Your task to perform on an android device: open app "Indeed Job Search" Image 0: 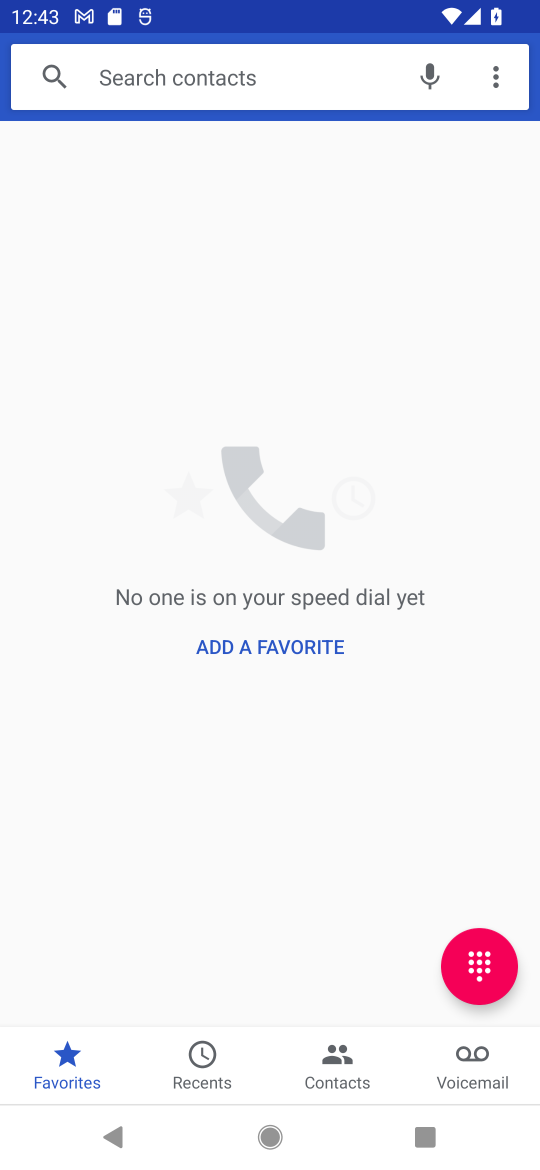
Step 0: press home button
Your task to perform on an android device: open app "Indeed Job Search" Image 1: 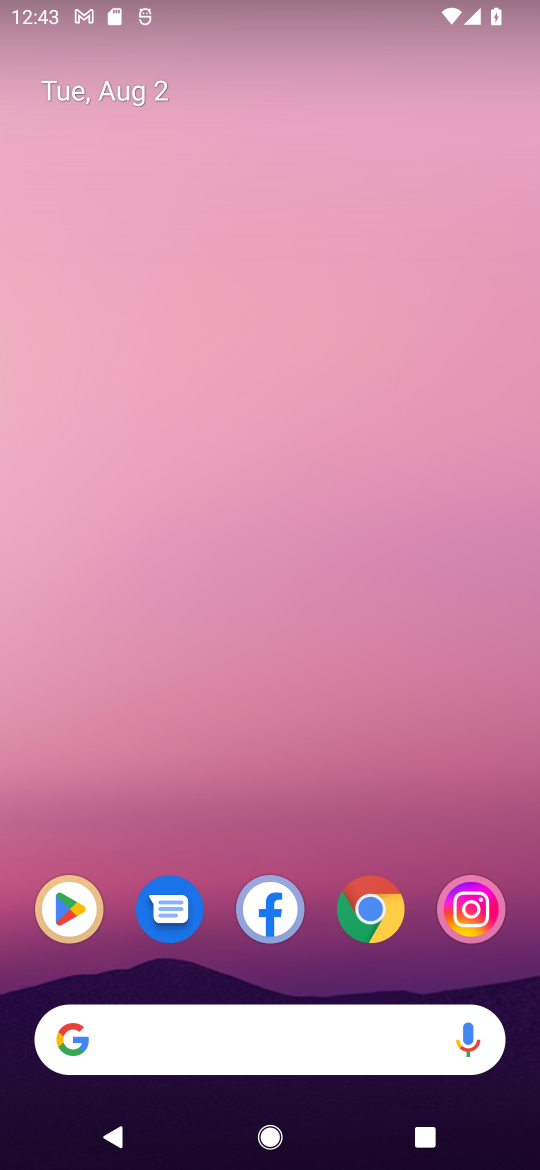
Step 1: click (66, 912)
Your task to perform on an android device: open app "Indeed Job Search" Image 2: 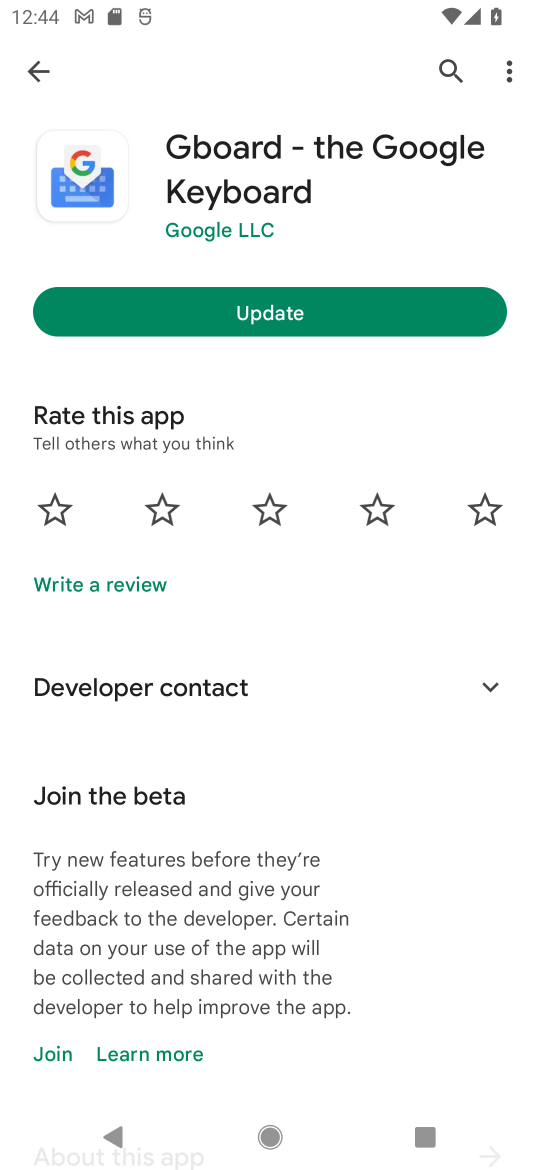
Step 2: click (39, 69)
Your task to perform on an android device: open app "Indeed Job Search" Image 3: 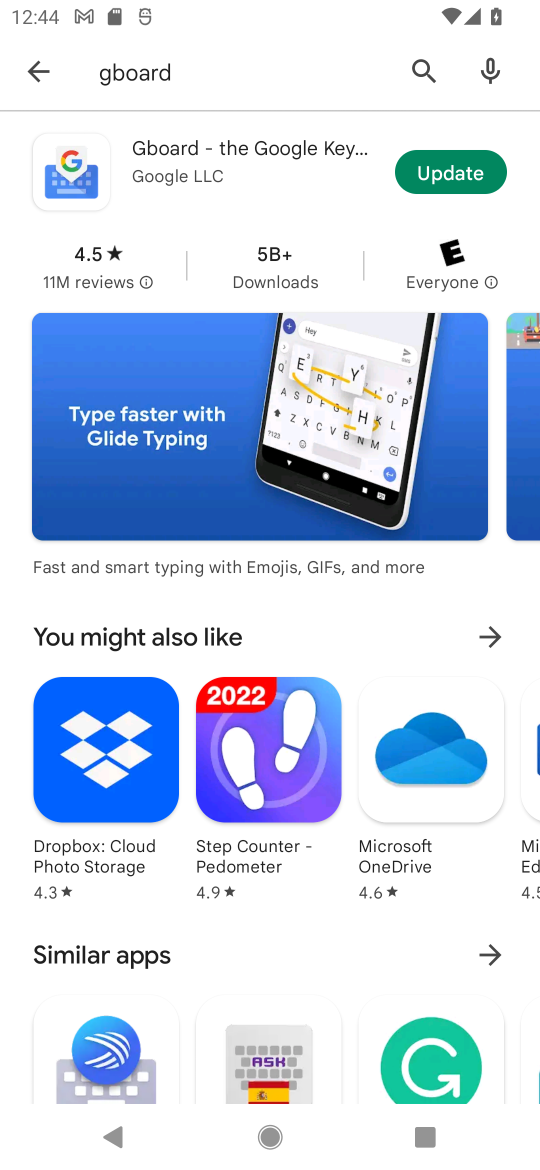
Step 3: click (39, 69)
Your task to perform on an android device: open app "Indeed Job Search" Image 4: 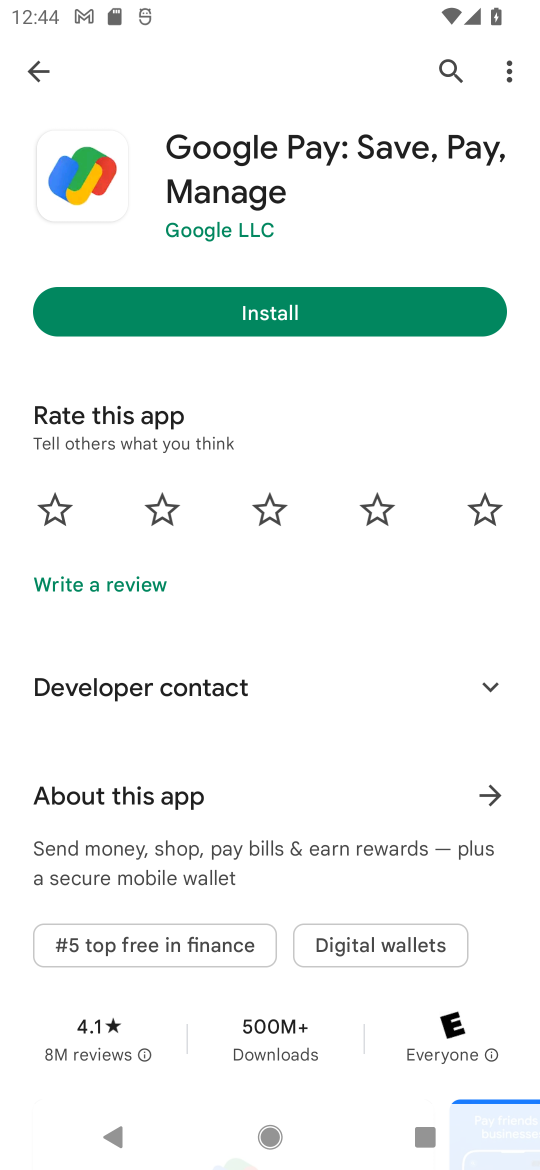
Step 4: click (445, 60)
Your task to perform on an android device: open app "Indeed Job Search" Image 5: 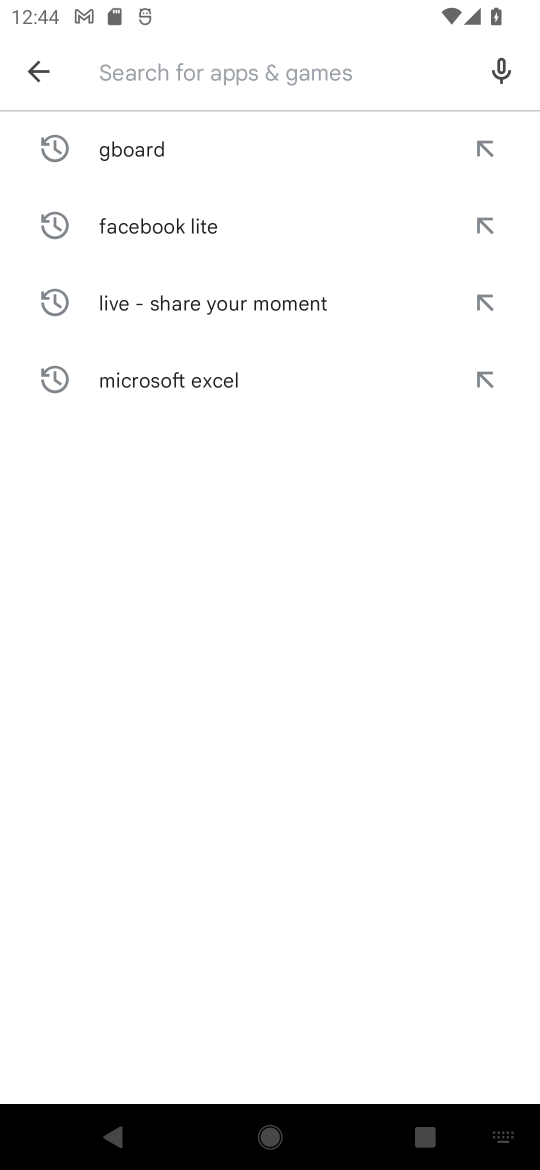
Step 5: type "Indeed Job Search"
Your task to perform on an android device: open app "Indeed Job Search" Image 6: 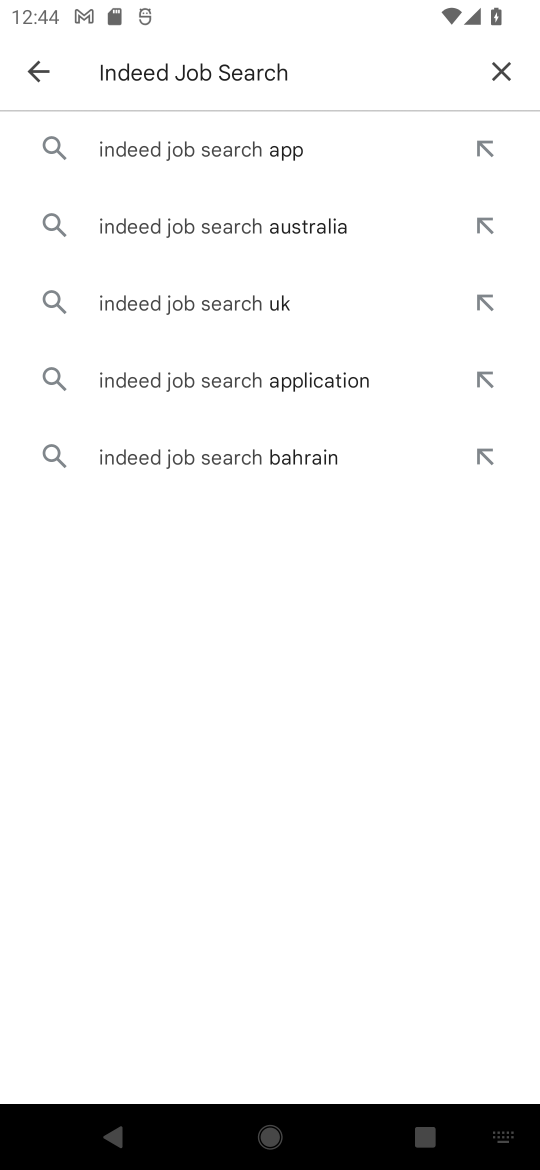
Step 6: click (267, 142)
Your task to perform on an android device: open app "Indeed Job Search" Image 7: 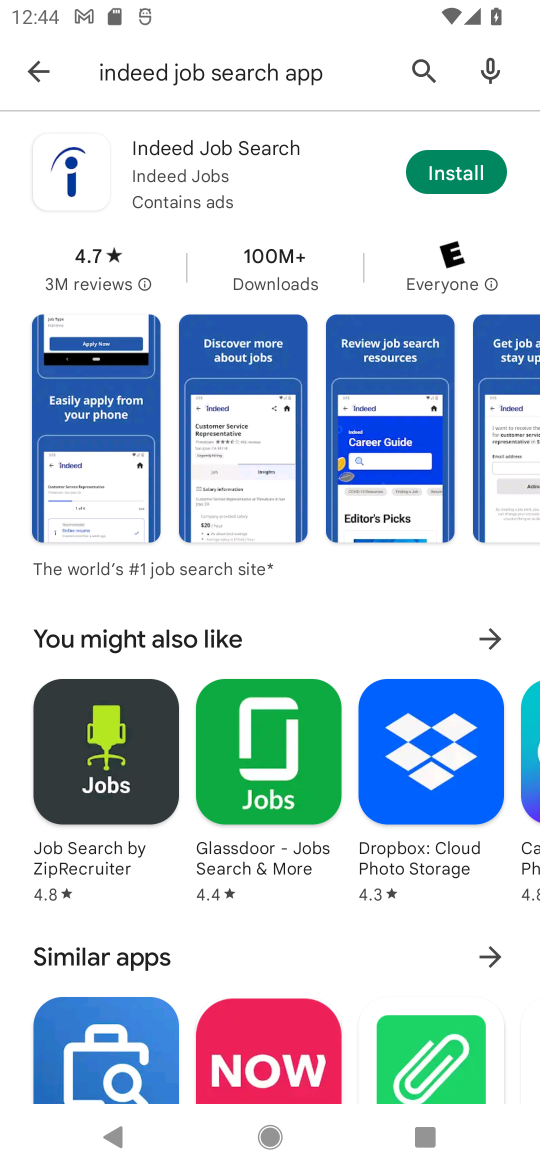
Step 7: task complete